Your task to perform on an android device: change alarm snooze length Image 0: 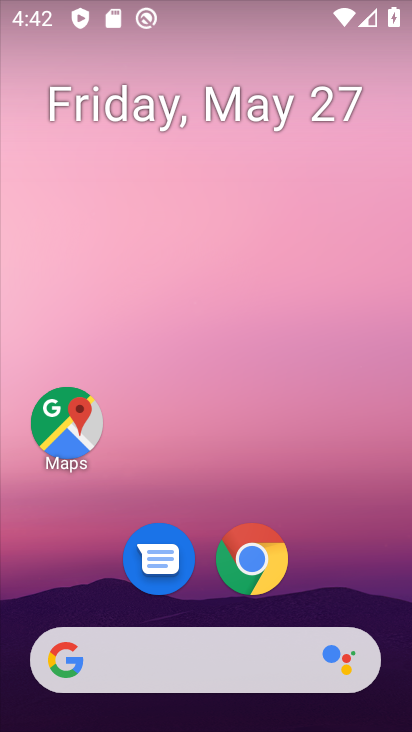
Step 0: drag from (224, 433) to (184, 82)
Your task to perform on an android device: change alarm snooze length Image 1: 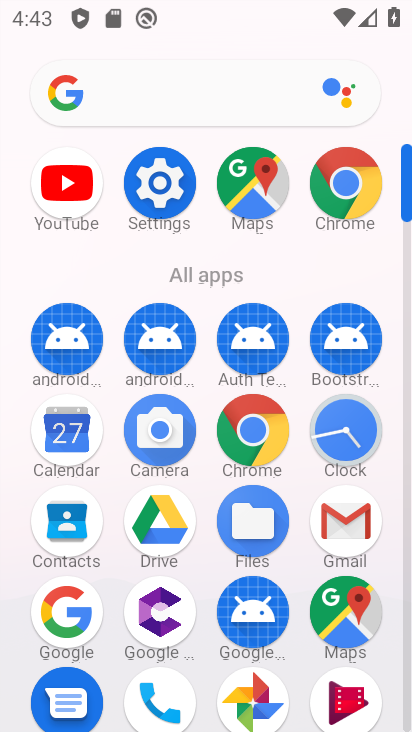
Step 1: click (348, 441)
Your task to perform on an android device: change alarm snooze length Image 2: 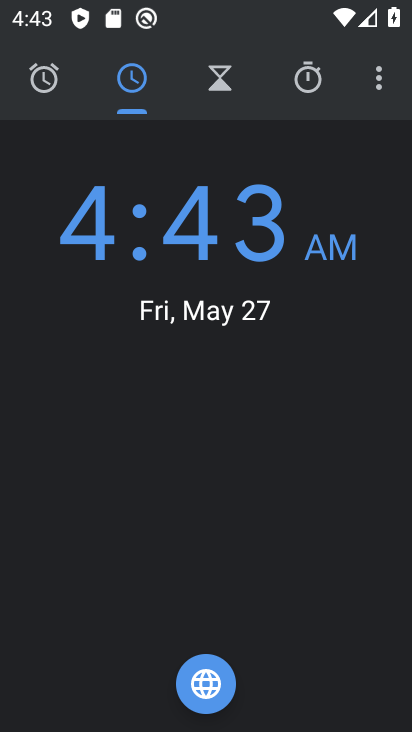
Step 2: click (381, 78)
Your task to perform on an android device: change alarm snooze length Image 3: 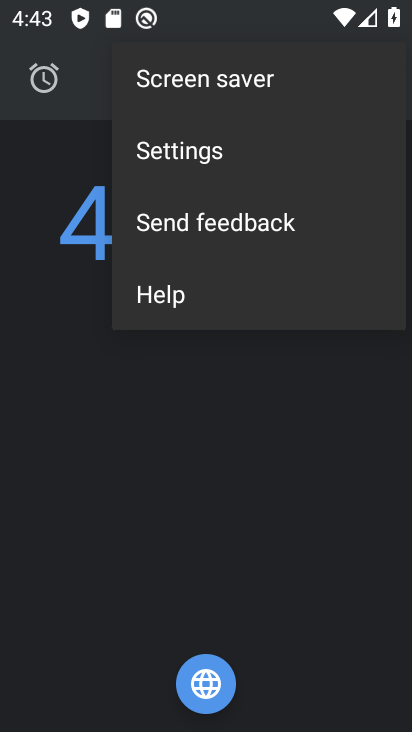
Step 3: click (215, 156)
Your task to perform on an android device: change alarm snooze length Image 4: 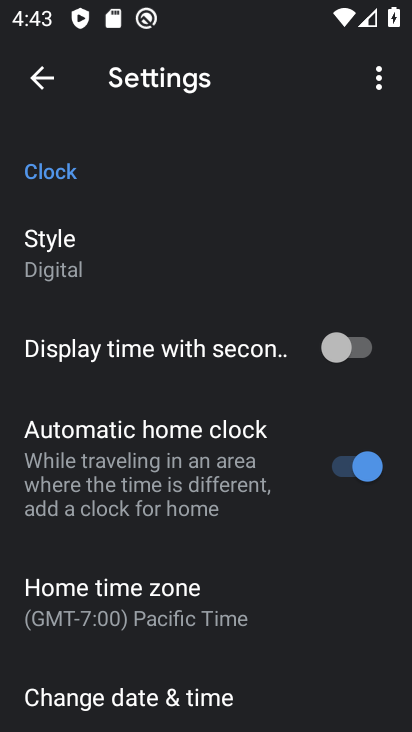
Step 4: drag from (249, 610) to (160, 211)
Your task to perform on an android device: change alarm snooze length Image 5: 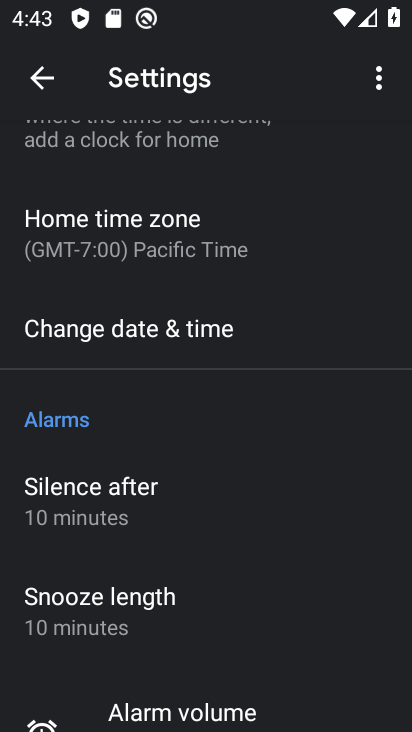
Step 5: click (141, 609)
Your task to perform on an android device: change alarm snooze length Image 6: 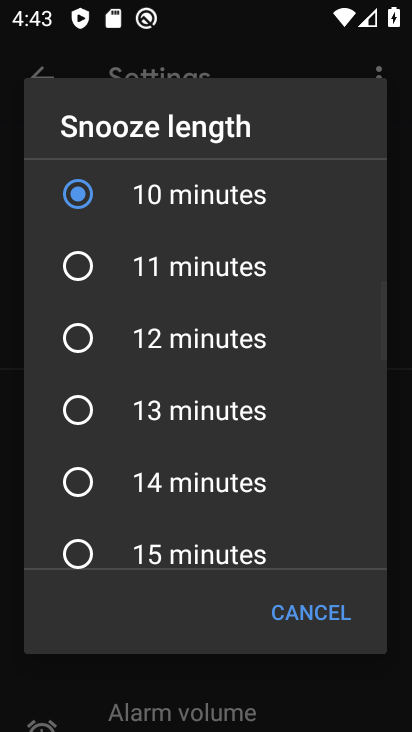
Step 6: click (147, 271)
Your task to perform on an android device: change alarm snooze length Image 7: 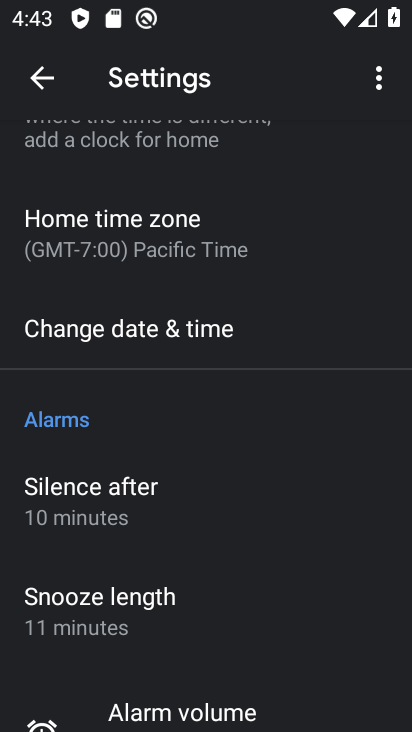
Step 7: task complete